Your task to perform on an android device: turn on translation in the chrome app Image 0: 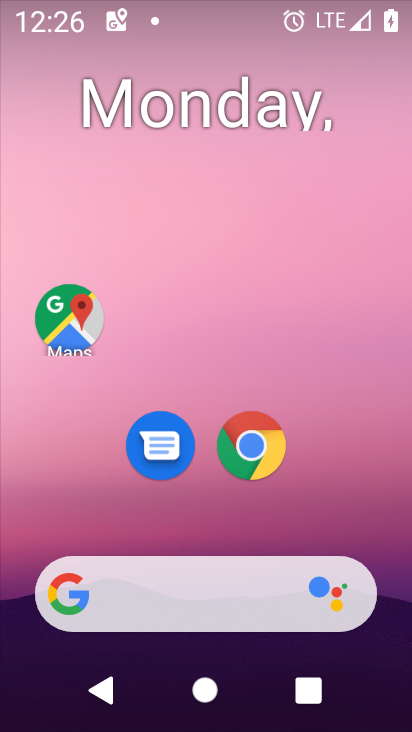
Step 0: drag from (210, 518) to (272, 251)
Your task to perform on an android device: turn on translation in the chrome app Image 1: 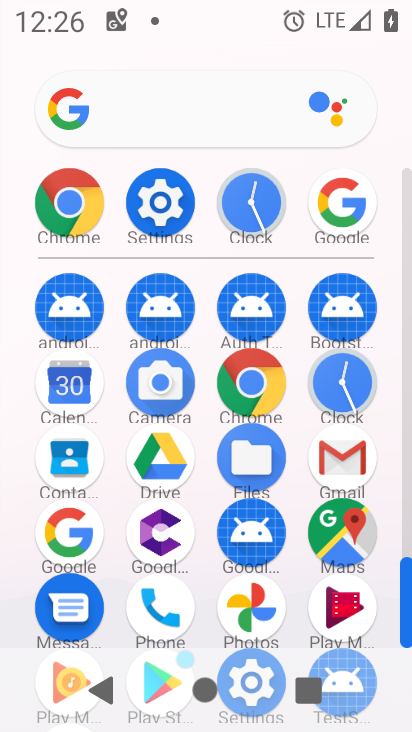
Step 1: click (251, 381)
Your task to perform on an android device: turn on translation in the chrome app Image 2: 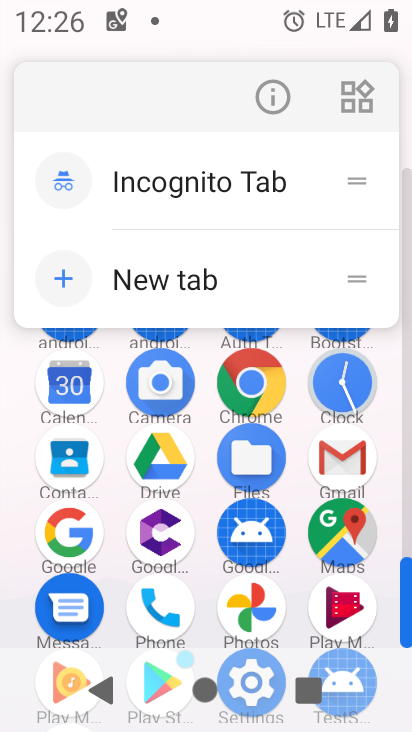
Step 2: click (282, 112)
Your task to perform on an android device: turn on translation in the chrome app Image 3: 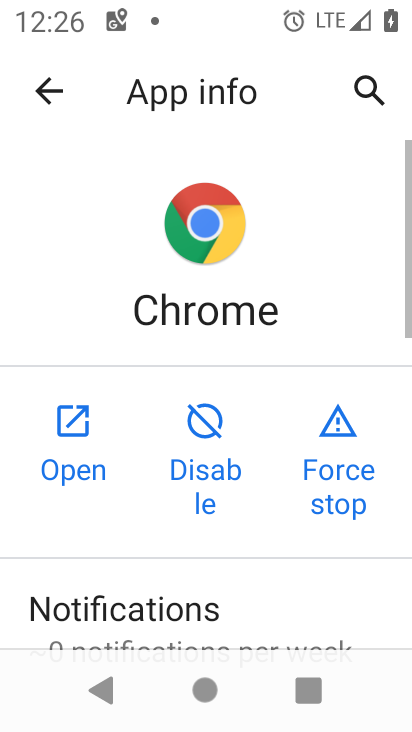
Step 3: click (85, 425)
Your task to perform on an android device: turn on translation in the chrome app Image 4: 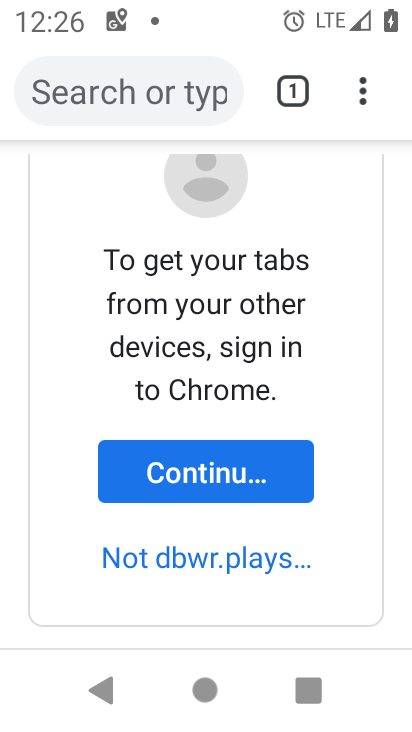
Step 4: drag from (357, 95) to (246, 496)
Your task to perform on an android device: turn on translation in the chrome app Image 5: 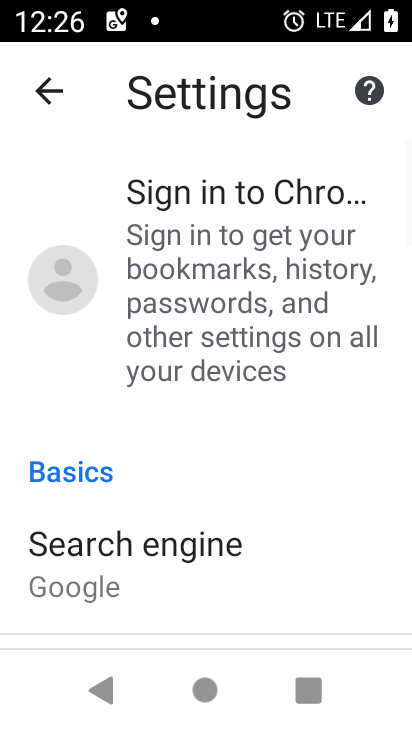
Step 5: drag from (193, 588) to (356, 0)
Your task to perform on an android device: turn on translation in the chrome app Image 6: 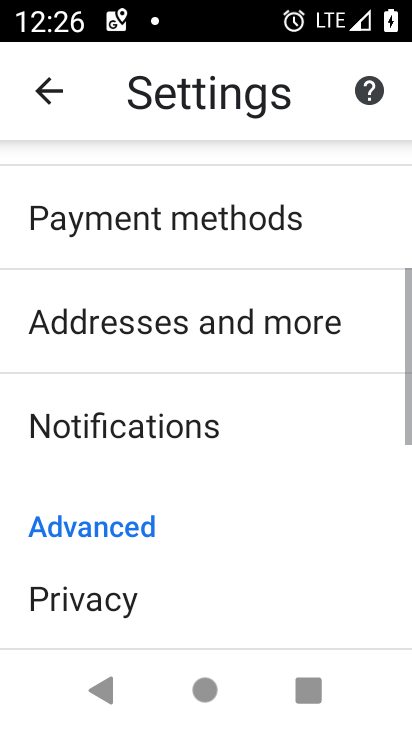
Step 6: drag from (206, 549) to (271, 168)
Your task to perform on an android device: turn on translation in the chrome app Image 7: 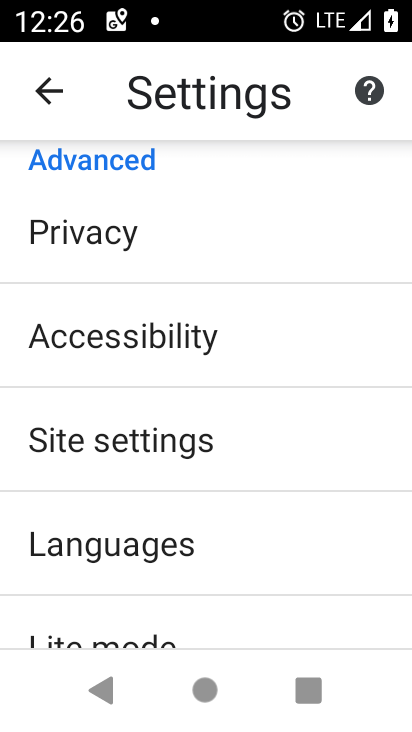
Step 7: click (169, 558)
Your task to perform on an android device: turn on translation in the chrome app Image 8: 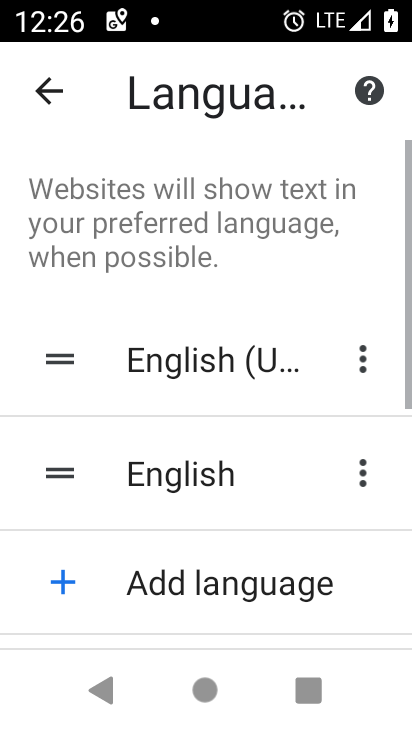
Step 8: task complete